Your task to perform on an android device: Open the phone app and click the voicemail tab. Image 0: 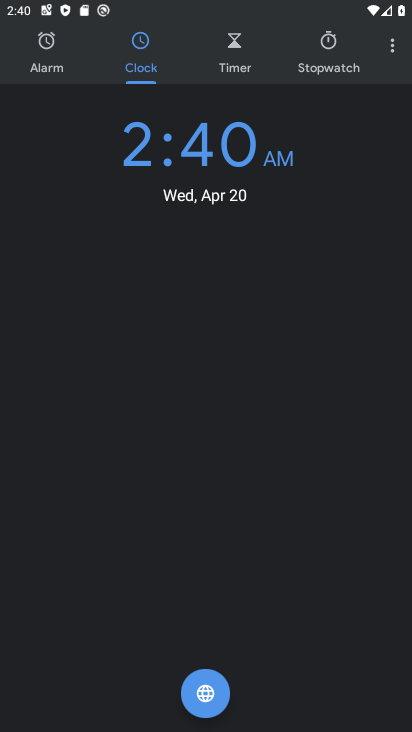
Step 0: press home button
Your task to perform on an android device: Open the phone app and click the voicemail tab. Image 1: 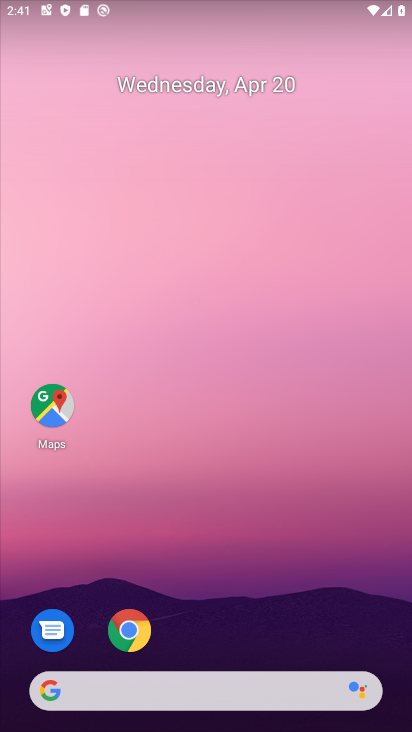
Step 1: drag from (281, 659) to (196, 144)
Your task to perform on an android device: Open the phone app and click the voicemail tab. Image 2: 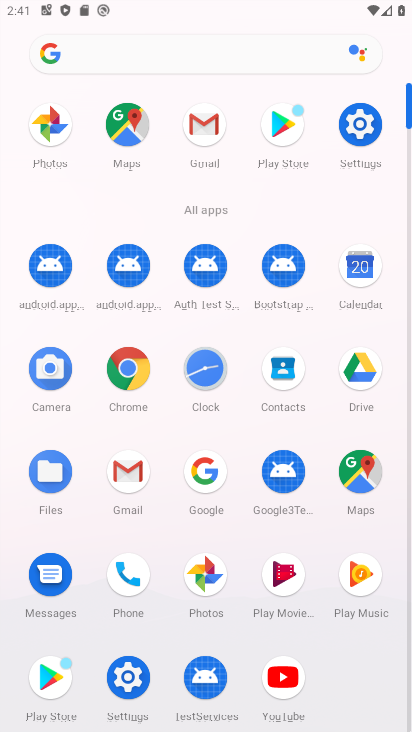
Step 2: click (135, 583)
Your task to perform on an android device: Open the phone app and click the voicemail tab. Image 3: 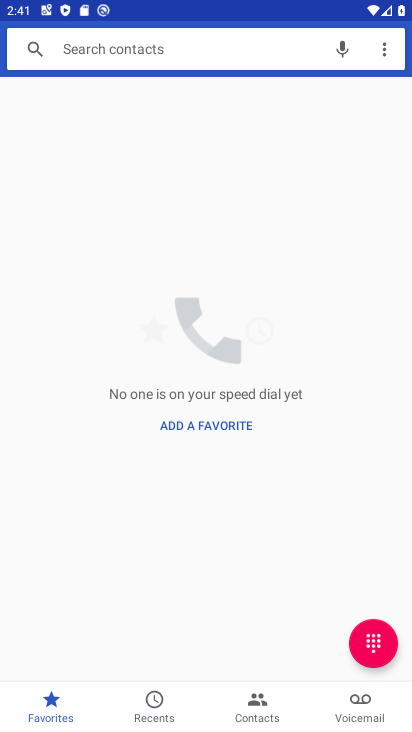
Step 3: click (372, 703)
Your task to perform on an android device: Open the phone app and click the voicemail tab. Image 4: 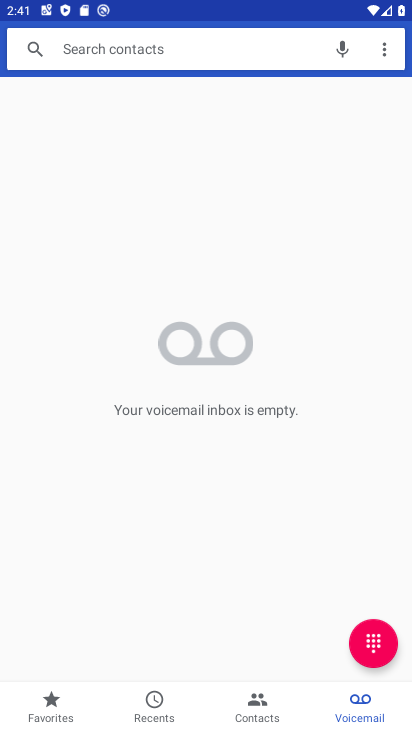
Step 4: task complete